Your task to perform on an android device: Open the phone app and click the voicemail tab. Image 0: 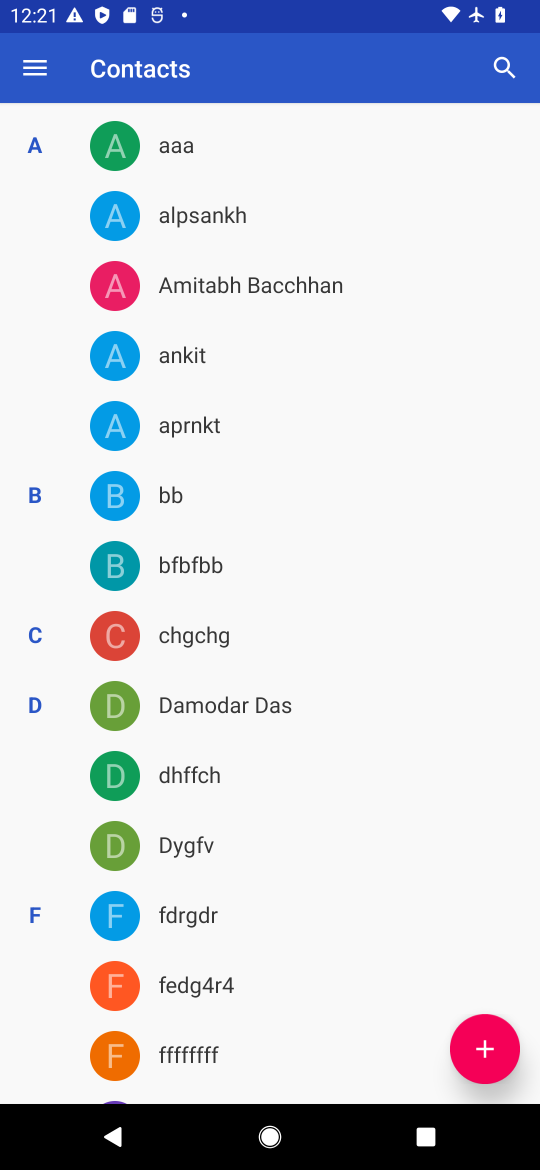
Step 0: press home button
Your task to perform on an android device: Open the phone app and click the voicemail tab. Image 1: 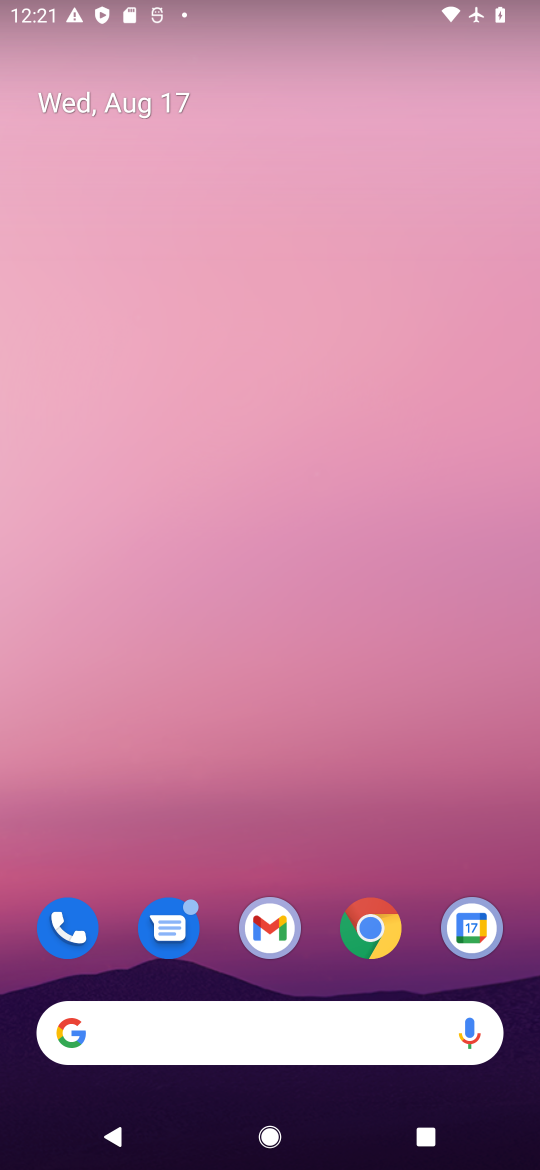
Step 1: drag from (272, 840) to (283, 247)
Your task to perform on an android device: Open the phone app and click the voicemail tab. Image 2: 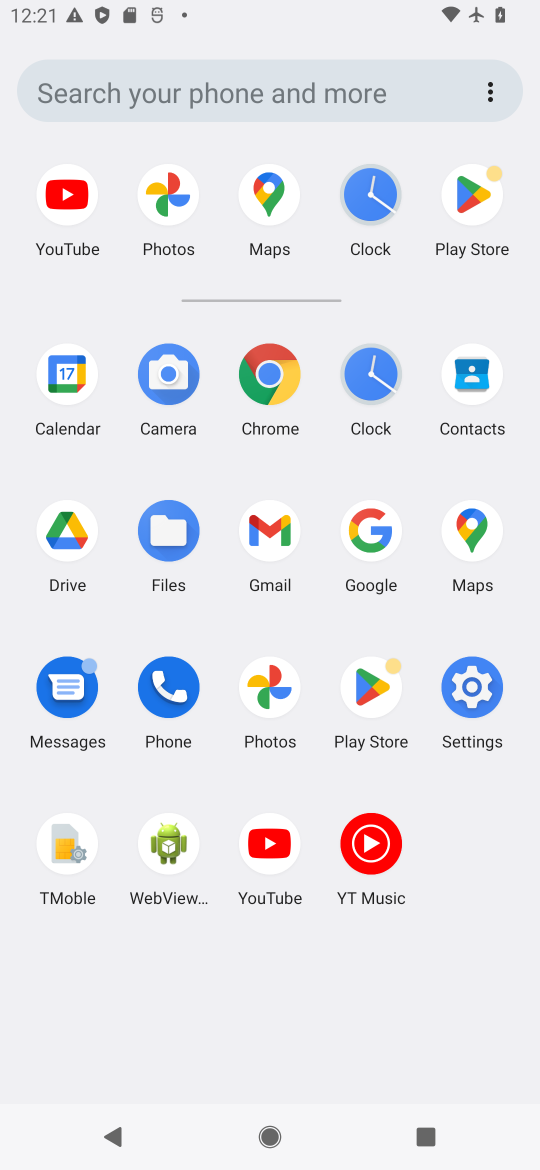
Step 2: click (186, 677)
Your task to perform on an android device: Open the phone app and click the voicemail tab. Image 3: 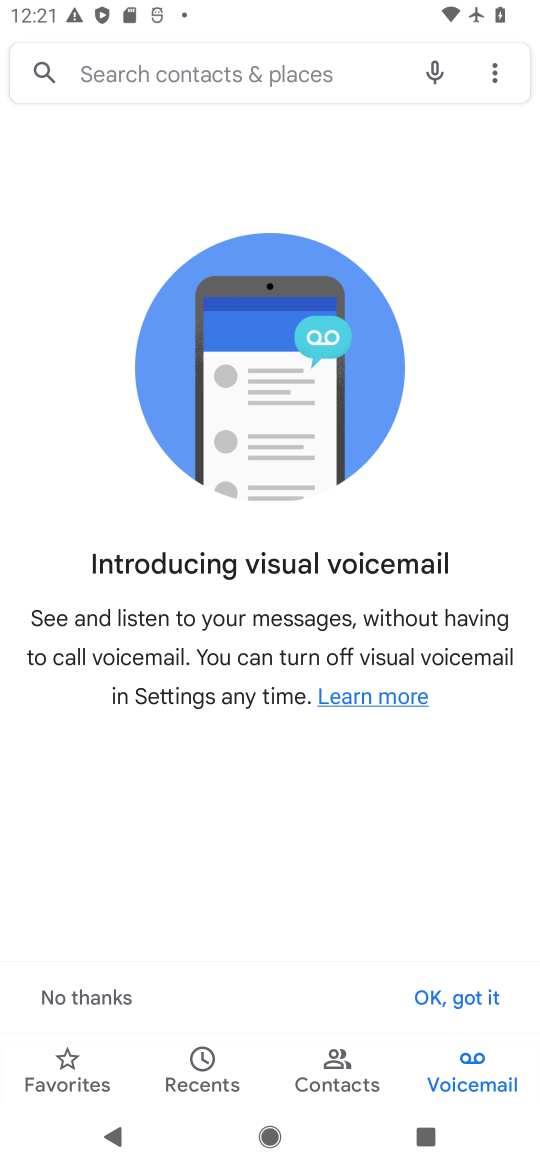
Step 3: task complete